Your task to perform on an android device: toggle wifi Image 0: 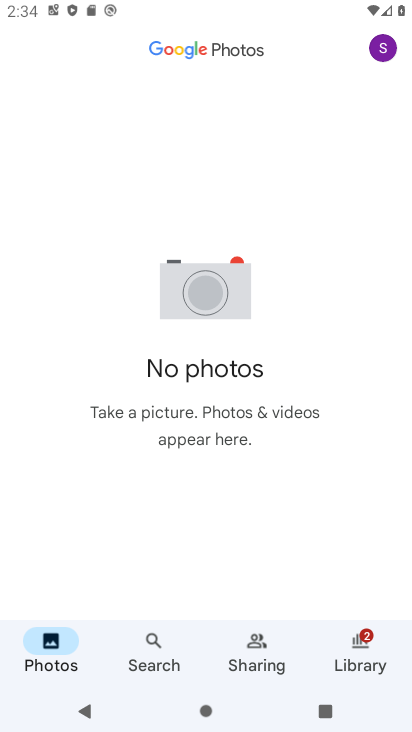
Step 0: drag from (203, 501) to (247, 208)
Your task to perform on an android device: toggle wifi Image 1: 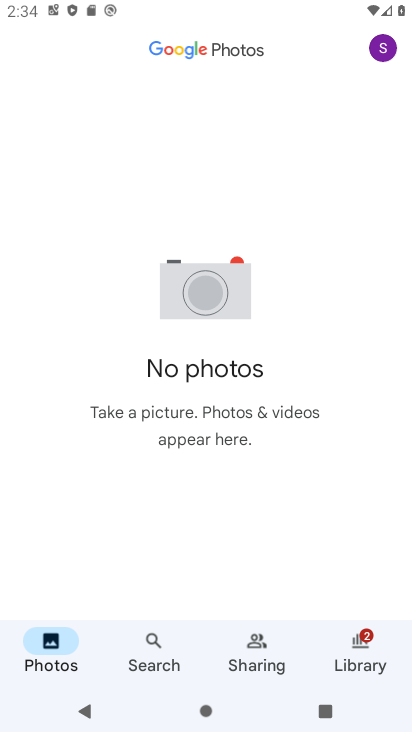
Step 1: click (376, 50)
Your task to perform on an android device: toggle wifi Image 2: 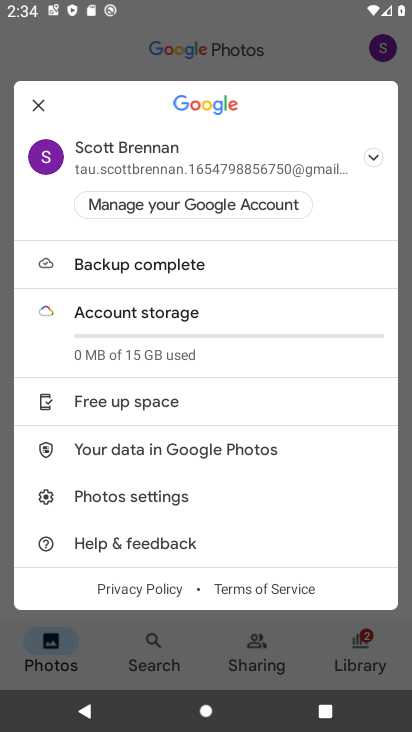
Step 2: press back button
Your task to perform on an android device: toggle wifi Image 3: 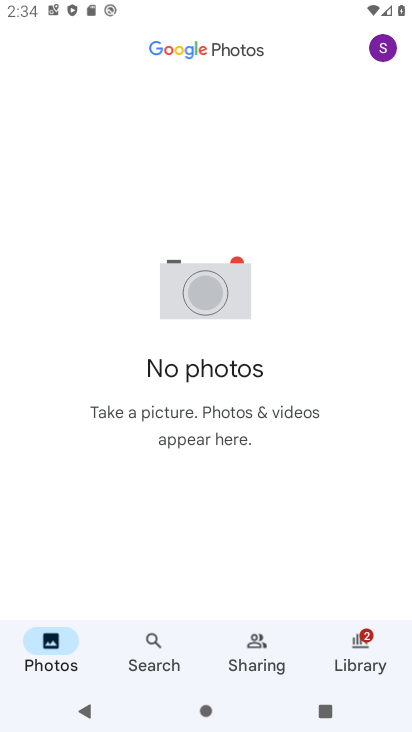
Step 3: drag from (214, 513) to (214, 406)
Your task to perform on an android device: toggle wifi Image 4: 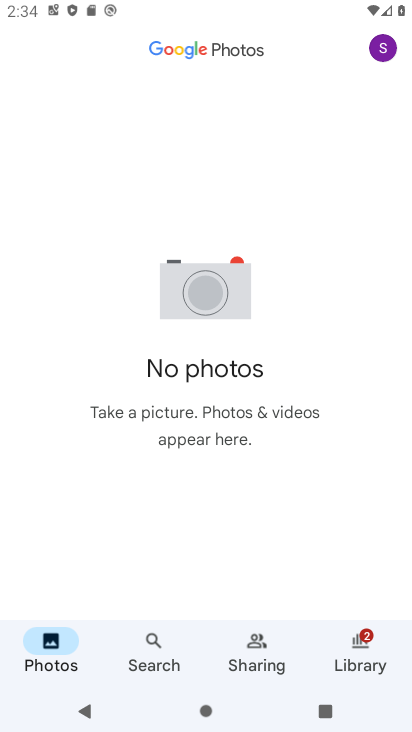
Step 4: press home button
Your task to perform on an android device: toggle wifi Image 5: 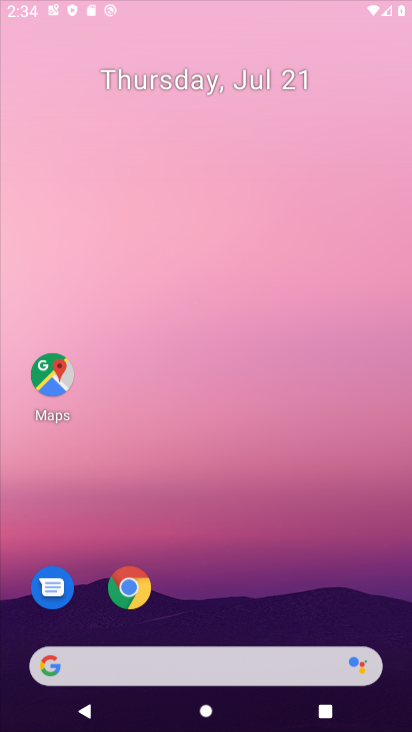
Step 5: drag from (181, 550) to (259, 335)
Your task to perform on an android device: toggle wifi Image 6: 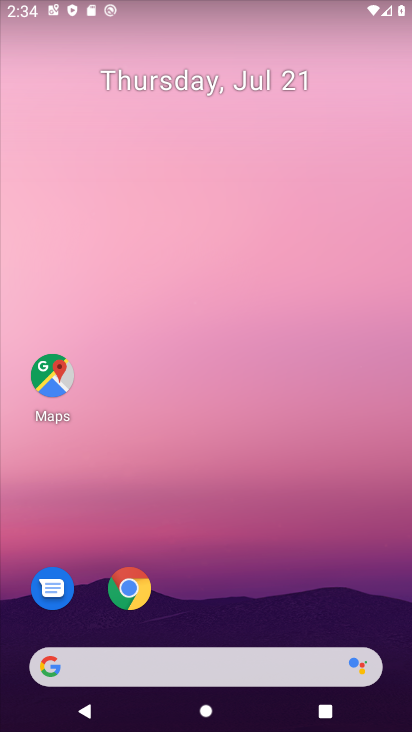
Step 6: drag from (253, 528) to (258, 173)
Your task to perform on an android device: toggle wifi Image 7: 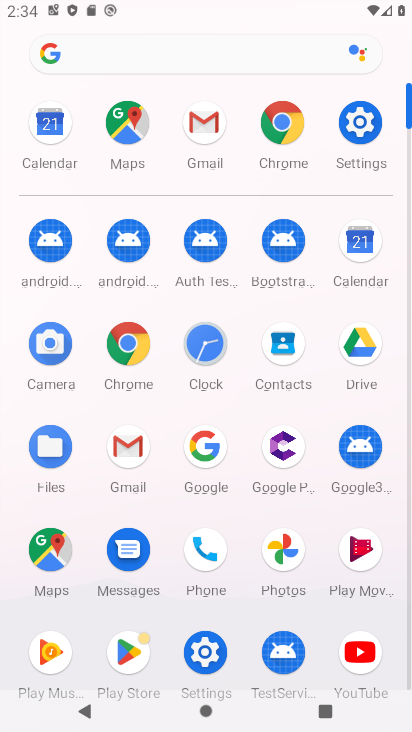
Step 7: click (353, 124)
Your task to perform on an android device: toggle wifi Image 8: 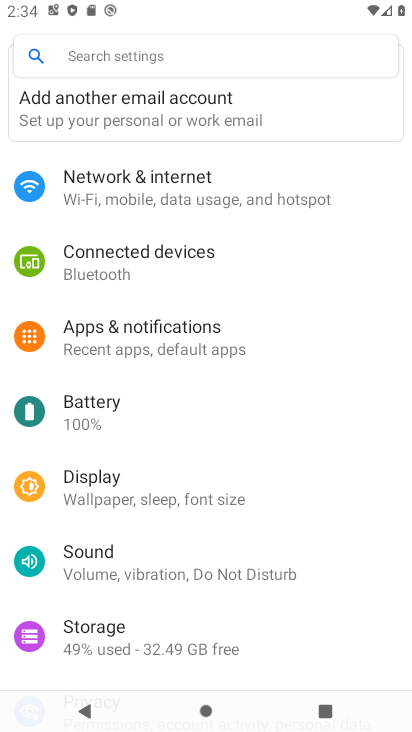
Step 8: drag from (72, 260) to (411, 440)
Your task to perform on an android device: toggle wifi Image 9: 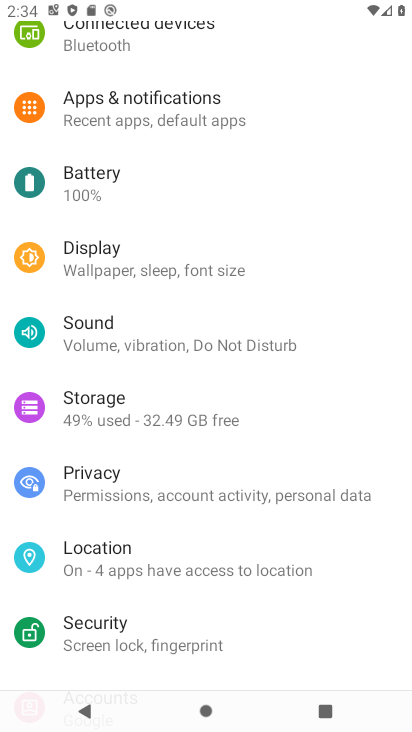
Step 9: drag from (182, 234) to (367, 711)
Your task to perform on an android device: toggle wifi Image 10: 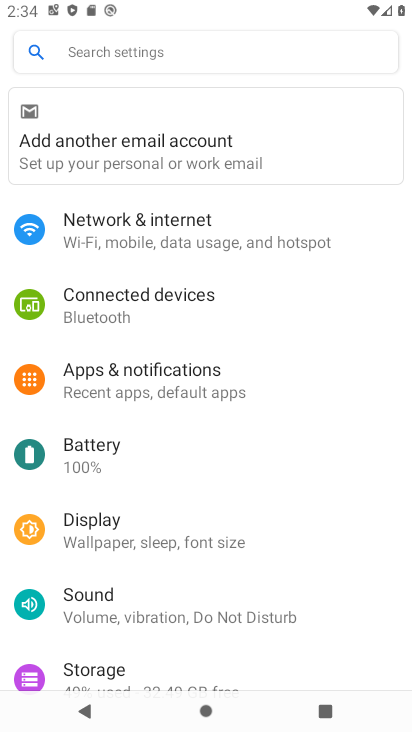
Step 10: click (180, 230)
Your task to perform on an android device: toggle wifi Image 11: 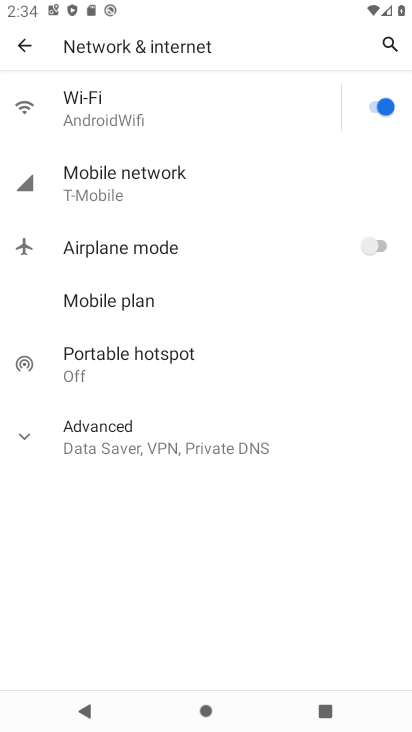
Step 11: click (149, 96)
Your task to perform on an android device: toggle wifi Image 12: 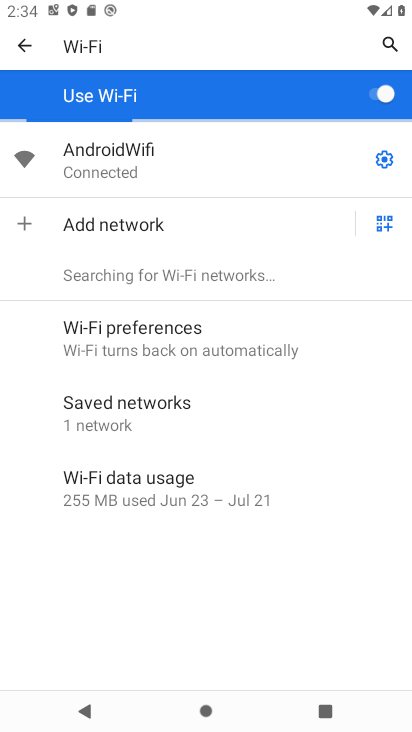
Step 12: click (377, 90)
Your task to perform on an android device: toggle wifi Image 13: 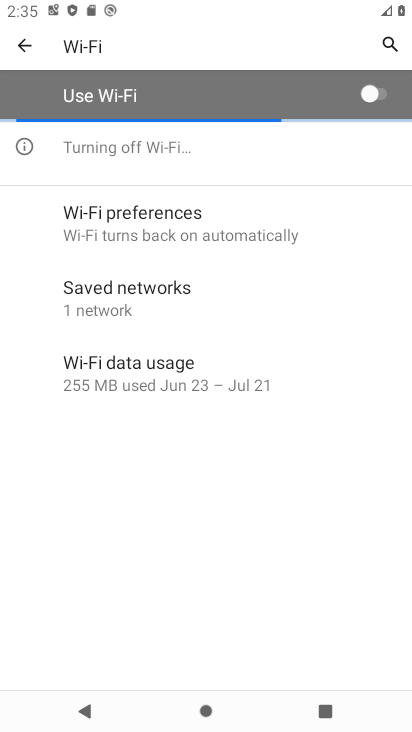
Step 13: task complete